Your task to perform on an android device: change your default location settings in chrome Image 0: 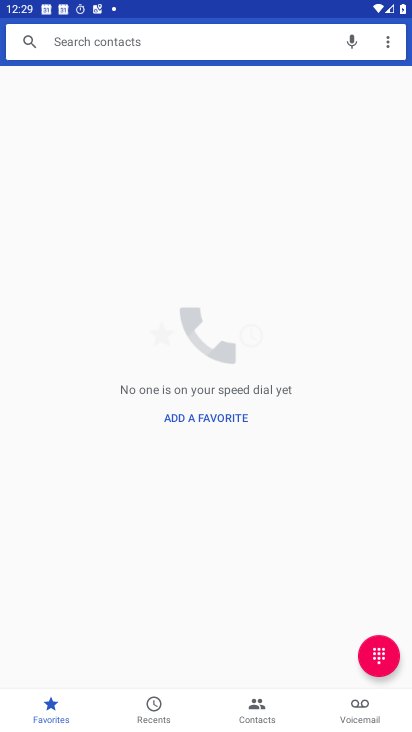
Step 0: press home button
Your task to perform on an android device: change your default location settings in chrome Image 1: 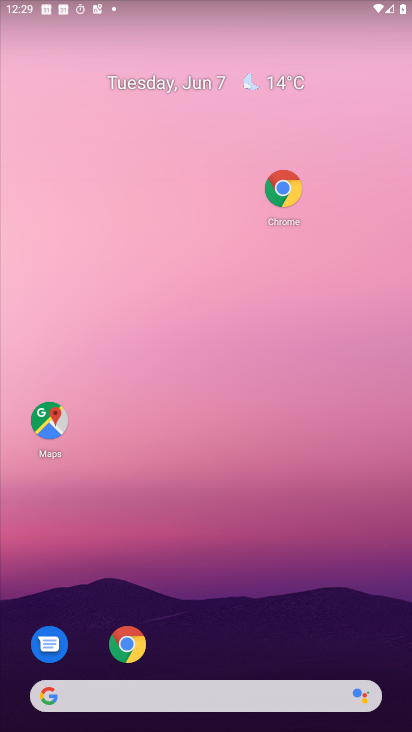
Step 1: click (284, 188)
Your task to perform on an android device: change your default location settings in chrome Image 2: 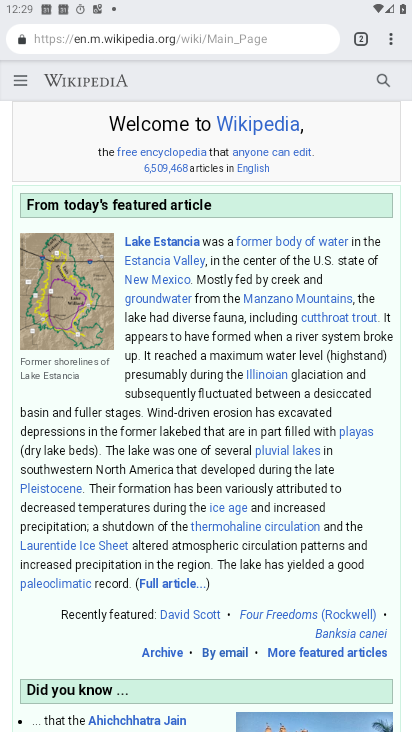
Step 2: click (392, 39)
Your task to perform on an android device: change your default location settings in chrome Image 3: 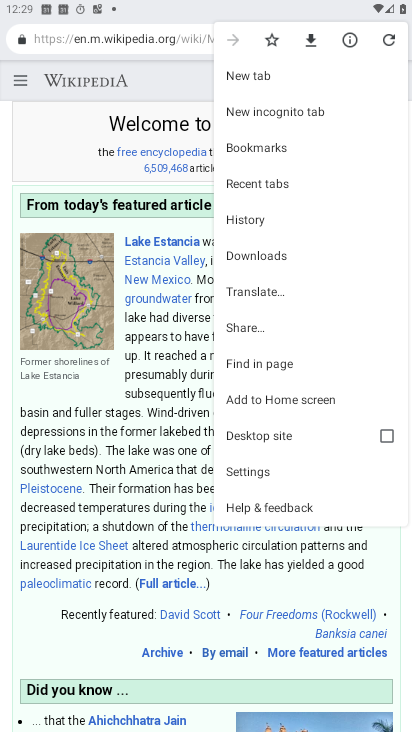
Step 3: click (261, 468)
Your task to perform on an android device: change your default location settings in chrome Image 4: 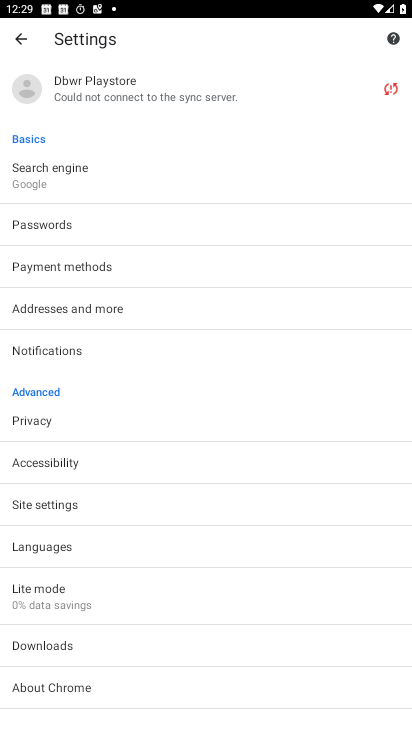
Step 4: click (74, 502)
Your task to perform on an android device: change your default location settings in chrome Image 5: 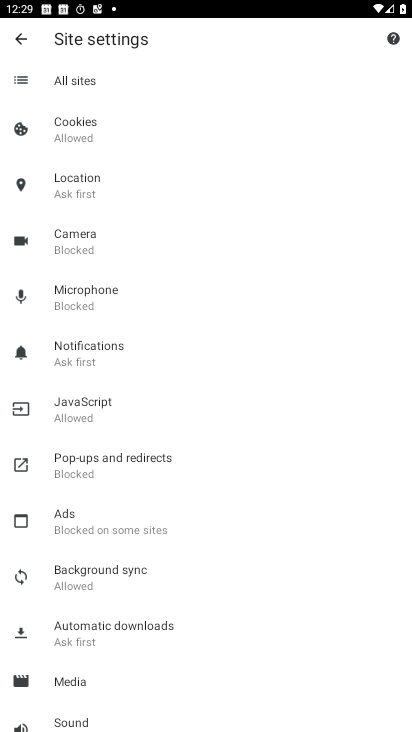
Step 5: click (91, 174)
Your task to perform on an android device: change your default location settings in chrome Image 6: 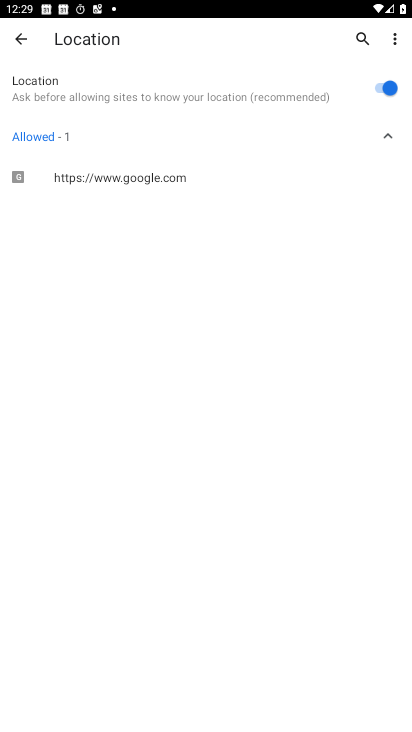
Step 6: click (370, 80)
Your task to perform on an android device: change your default location settings in chrome Image 7: 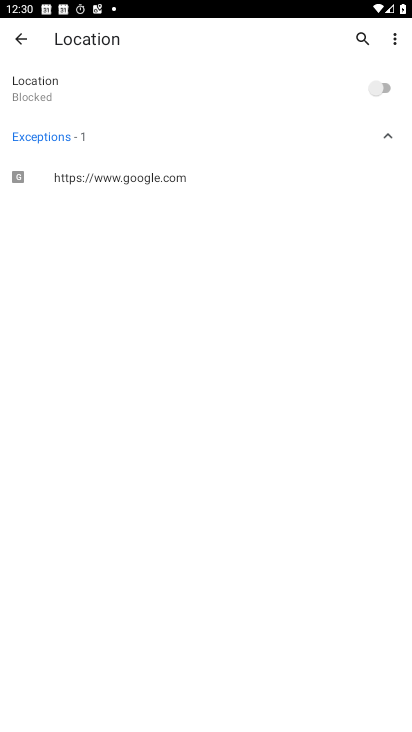
Step 7: task complete